Your task to perform on an android device: check android version Image 0: 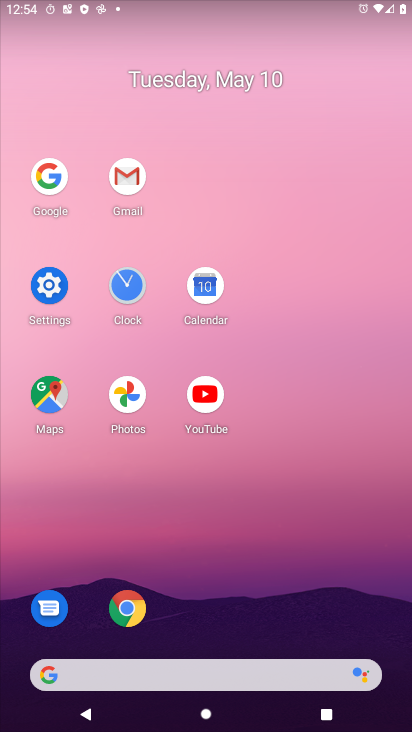
Step 0: click (48, 277)
Your task to perform on an android device: check android version Image 1: 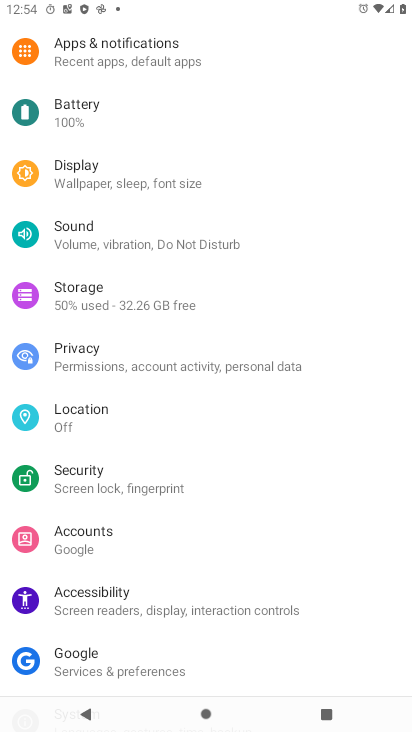
Step 1: drag from (285, 614) to (300, 232)
Your task to perform on an android device: check android version Image 2: 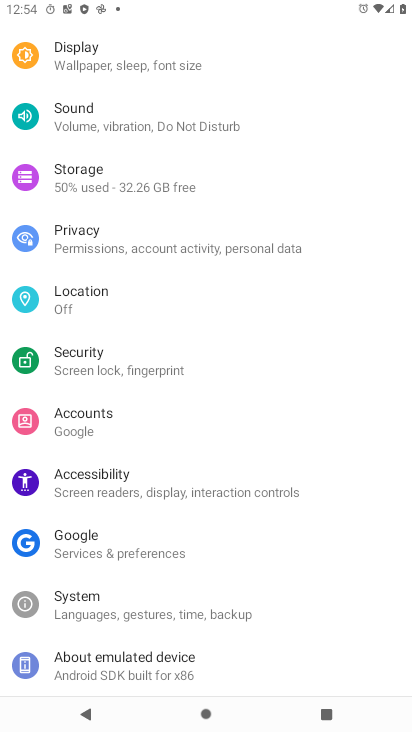
Step 2: drag from (309, 582) to (273, 274)
Your task to perform on an android device: check android version Image 3: 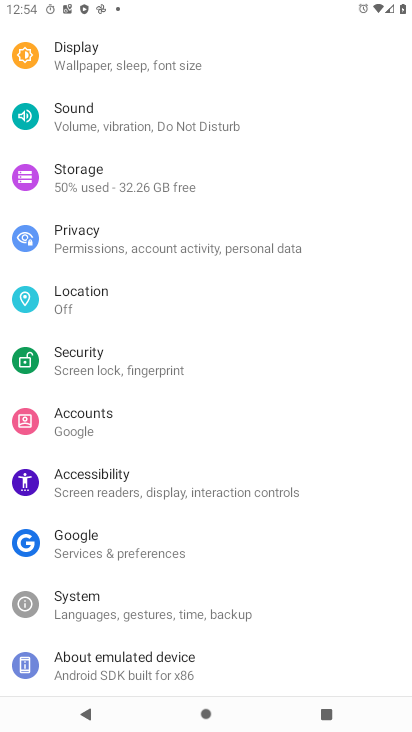
Step 3: click (220, 656)
Your task to perform on an android device: check android version Image 4: 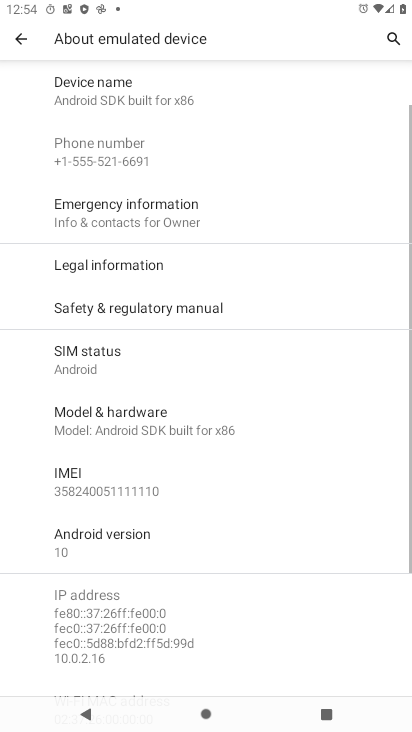
Step 4: click (226, 552)
Your task to perform on an android device: check android version Image 5: 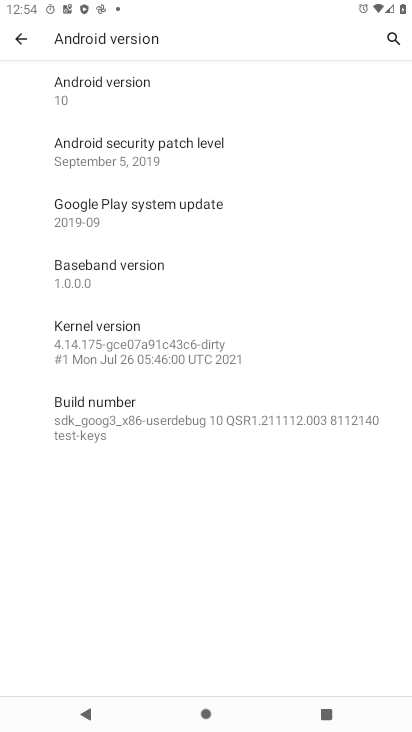
Step 5: task complete